Your task to perform on an android device: uninstall "Pluto TV - Live TV and Movies" Image 0: 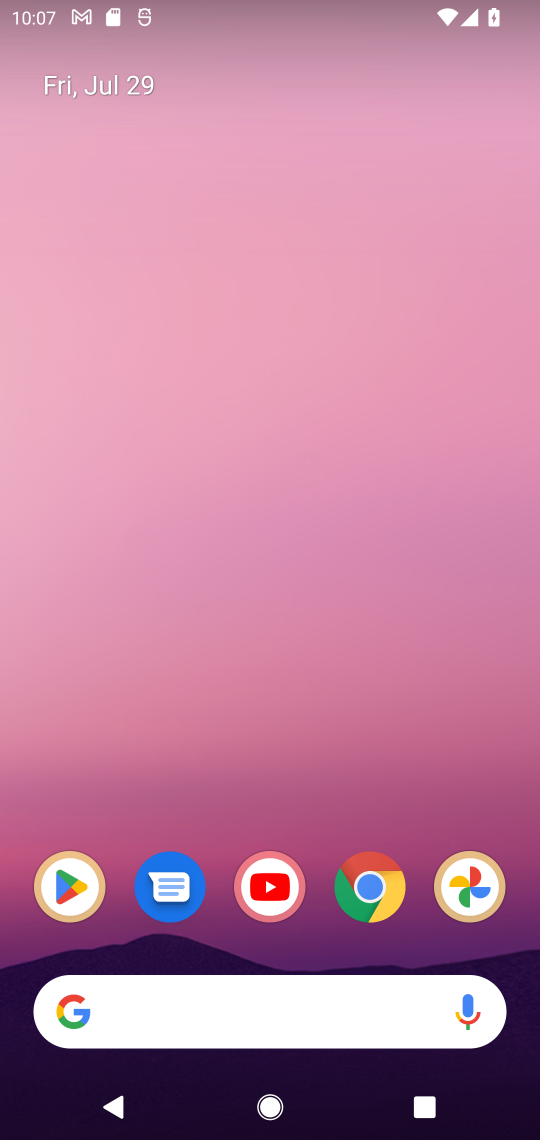
Step 0: click (50, 880)
Your task to perform on an android device: uninstall "Pluto TV - Live TV and Movies" Image 1: 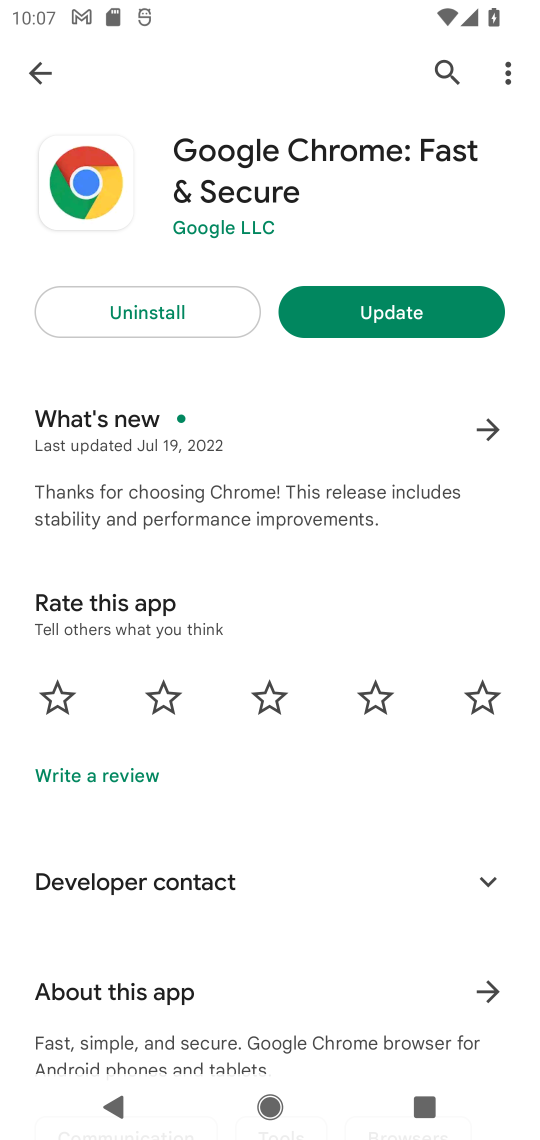
Step 1: click (444, 74)
Your task to perform on an android device: uninstall "Pluto TV - Live TV and Movies" Image 2: 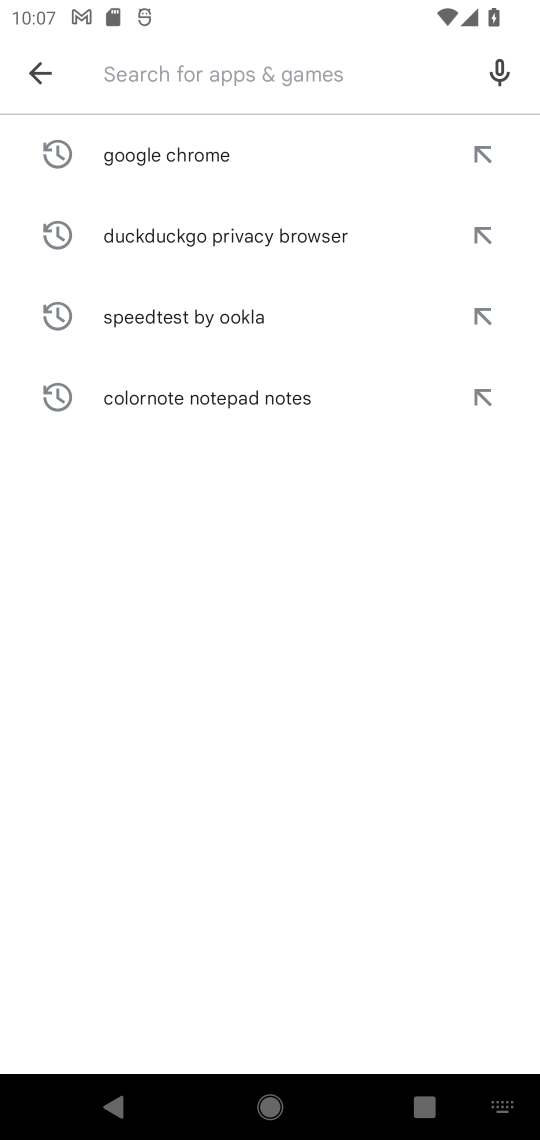
Step 2: type "pluto tv - live tv and movies"
Your task to perform on an android device: uninstall "Pluto TV - Live TV and Movies" Image 3: 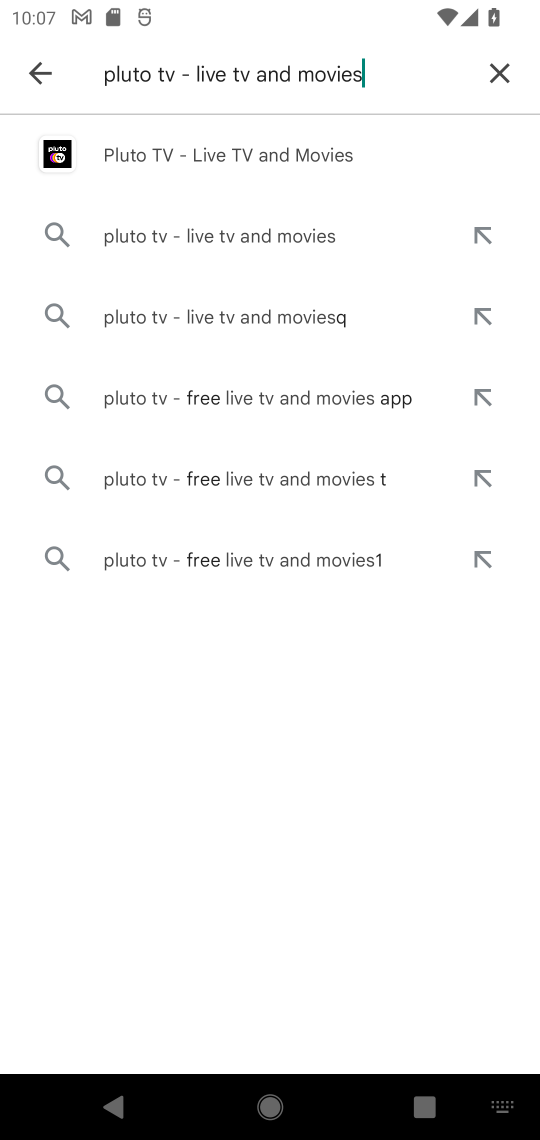
Step 3: click (222, 151)
Your task to perform on an android device: uninstall "Pluto TV - Live TV and Movies" Image 4: 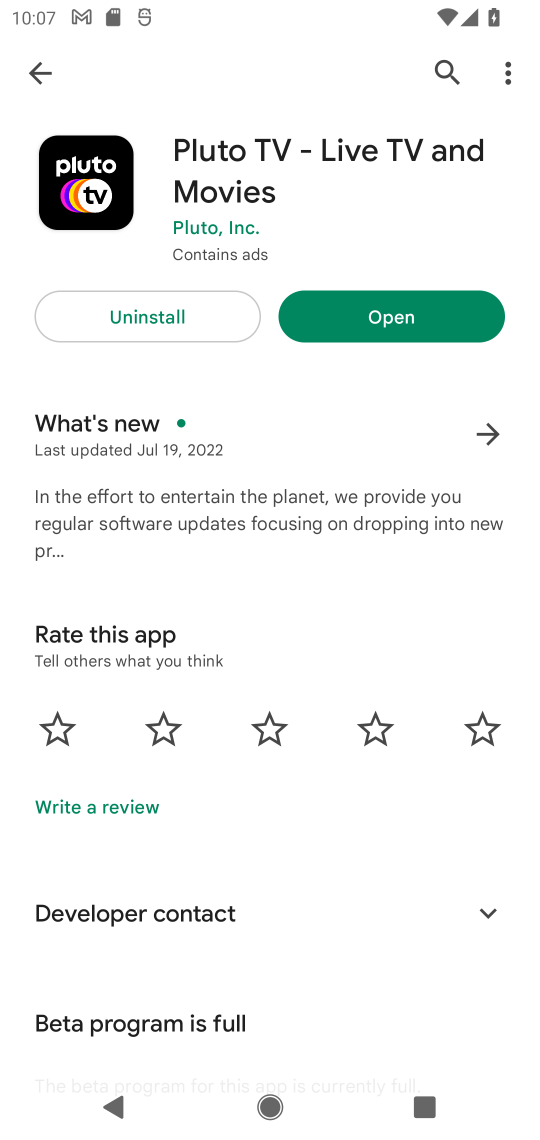
Step 4: click (116, 306)
Your task to perform on an android device: uninstall "Pluto TV - Live TV and Movies" Image 5: 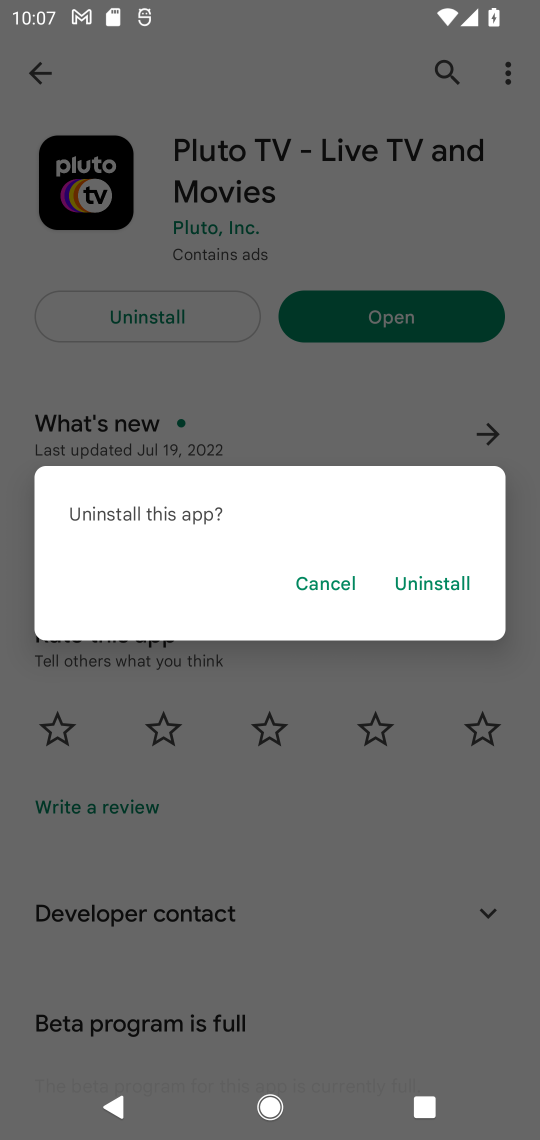
Step 5: click (424, 590)
Your task to perform on an android device: uninstall "Pluto TV - Live TV and Movies" Image 6: 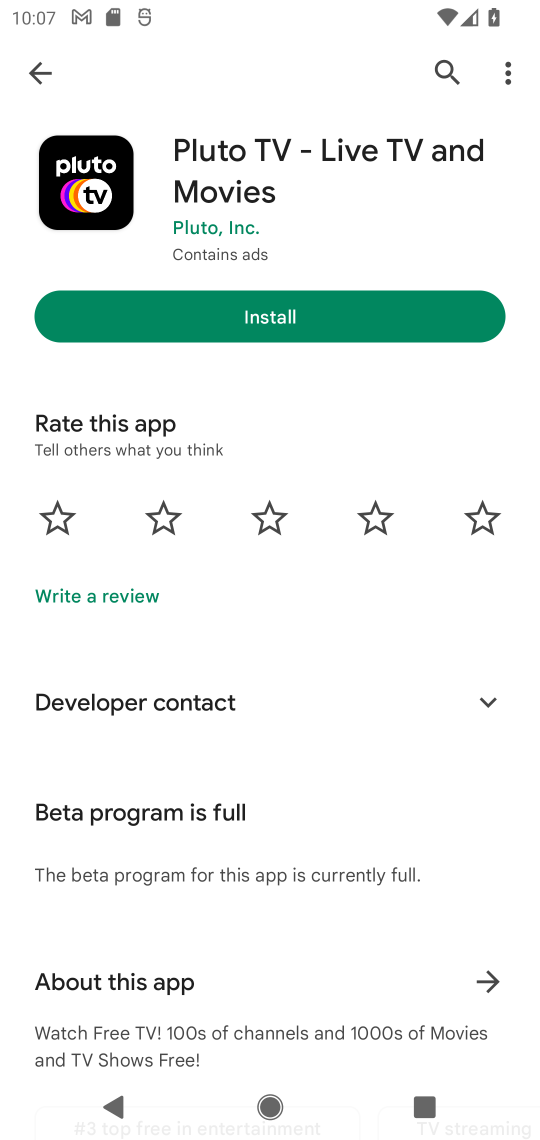
Step 6: task complete